Your task to perform on an android device: Open settings Image 0: 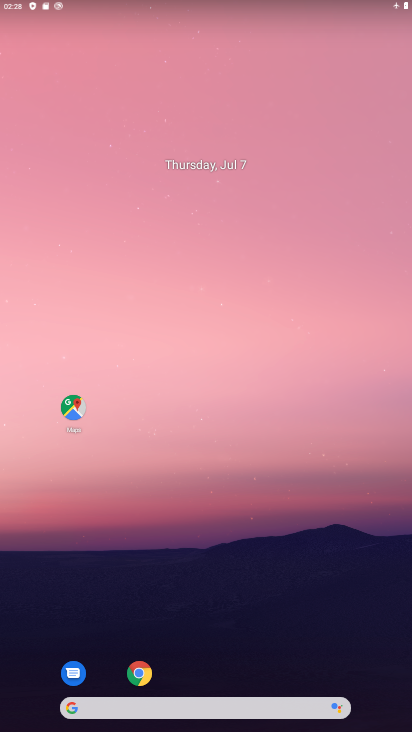
Step 0: drag from (246, 641) to (282, 155)
Your task to perform on an android device: Open settings Image 1: 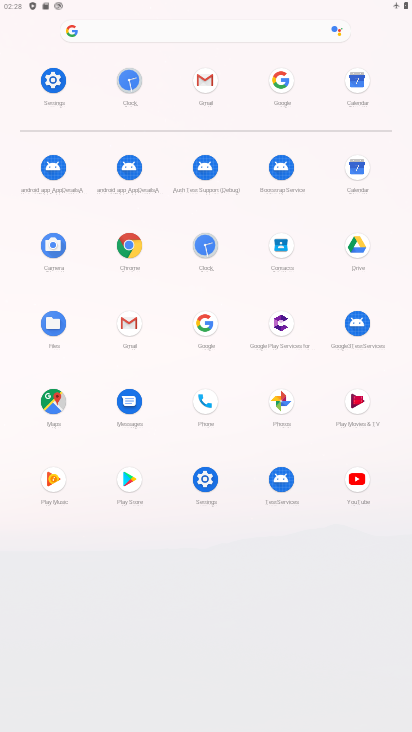
Step 1: click (59, 79)
Your task to perform on an android device: Open settings Image 2: 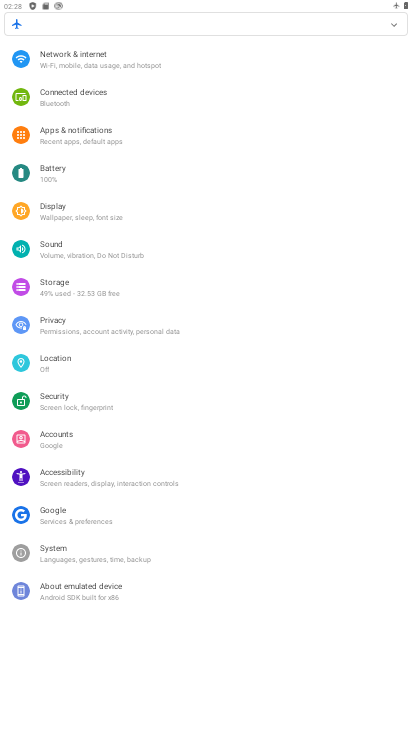
Step 2: task complete